Your task to perform on an android device: Check the weather Image 0: 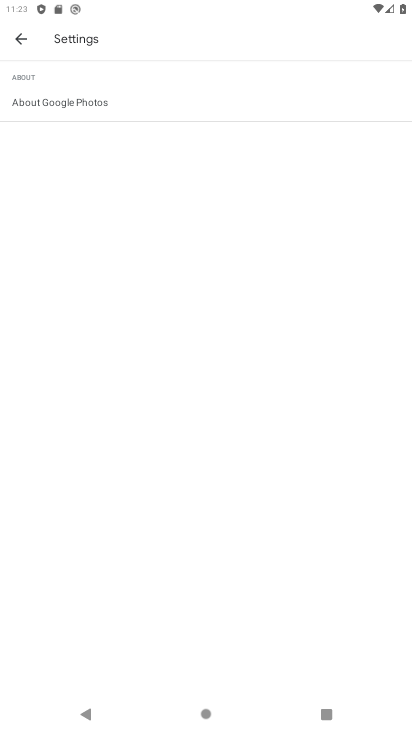
Step 0: press home button
Your task to perform on an android device: Check the weather Image 1: 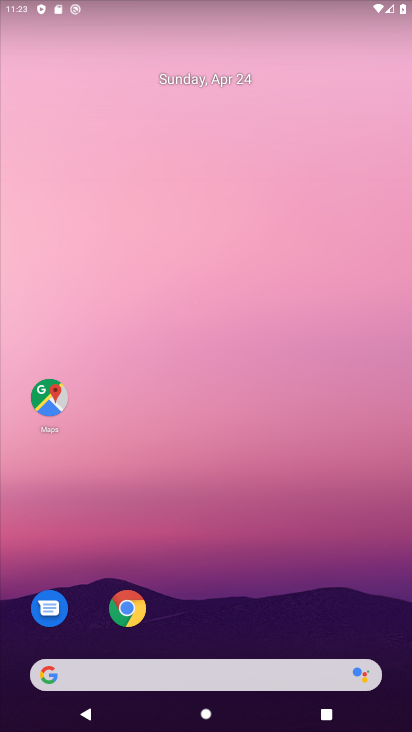
Step 1: drag from (219, 725) to (224, 183)
Your task to perform on an android device: Check the weather Image 2: 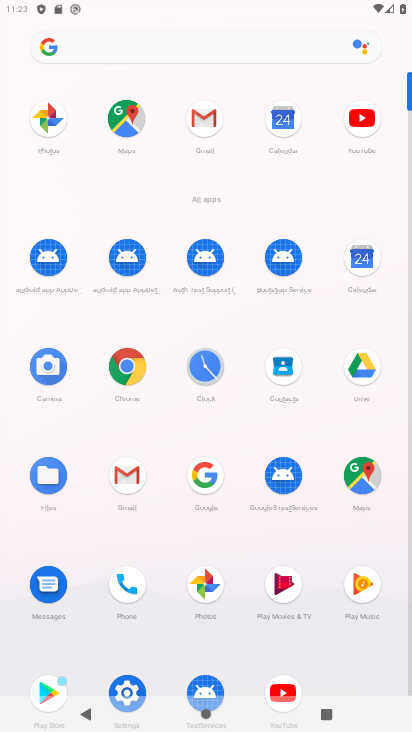
Step 2: click (203, 470)
Your task to perform on an android device: Check the weather Image 3: 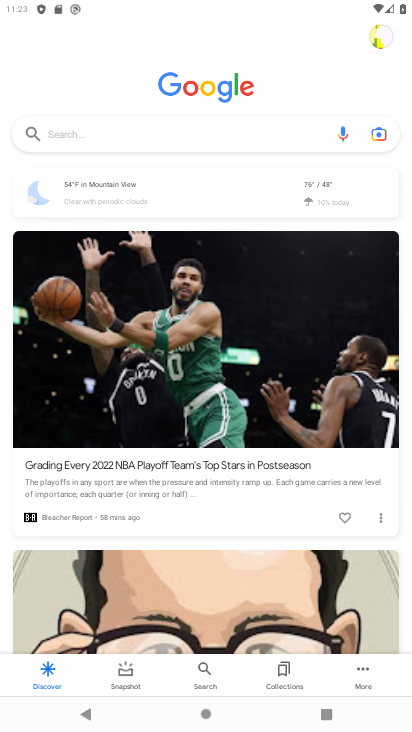
Step 3: click (122, 191)
Your task to perform on an android device: Check the weather Image 4: 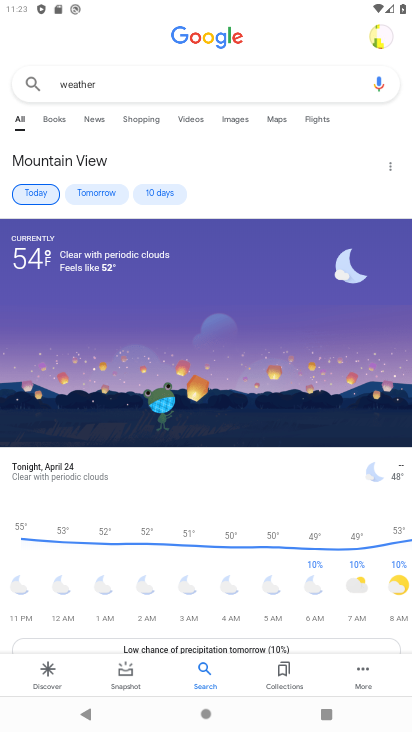
Step 4: task complete